Your task to perform on an android device: Show me the alarms in the clock app Image 0: 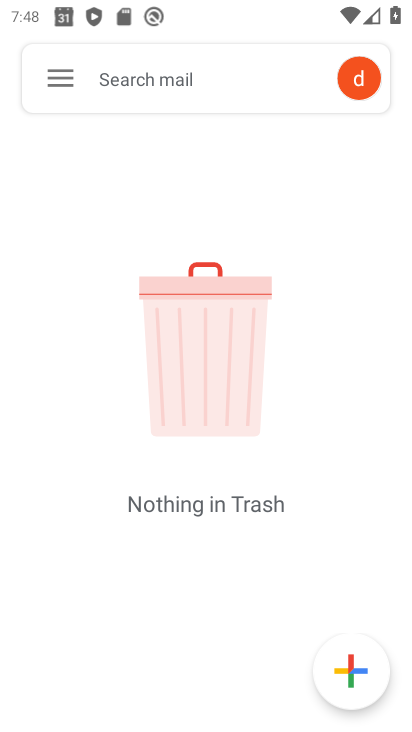
Step 0: press home button
Your task to perform on an android device: Show me the alarms in the clock app Image 1: 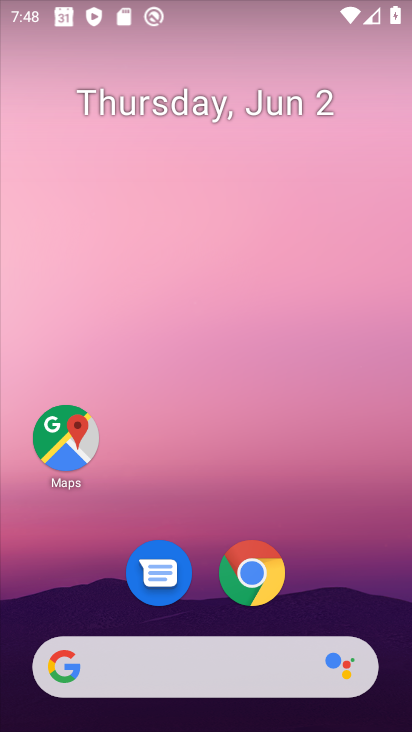
Step 1: drag from (351, 521) to (381, 65)
Your task to perform on an android device: Show me the alarms in the clock app Image 2: 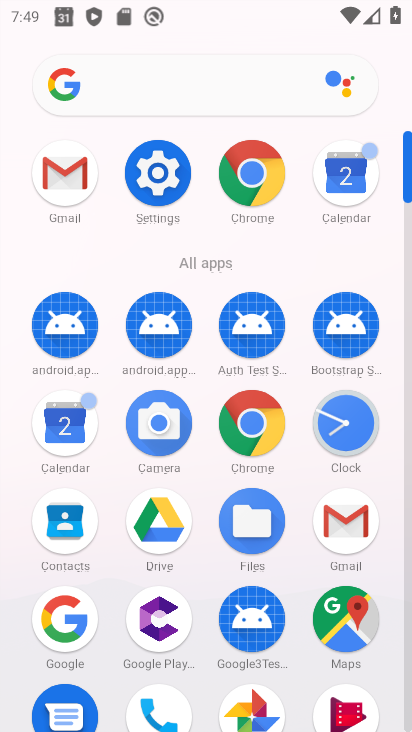
Step 2: click (345, 431)
Your task to perform on an android device: Show me the alarms in the clock app Image 3: 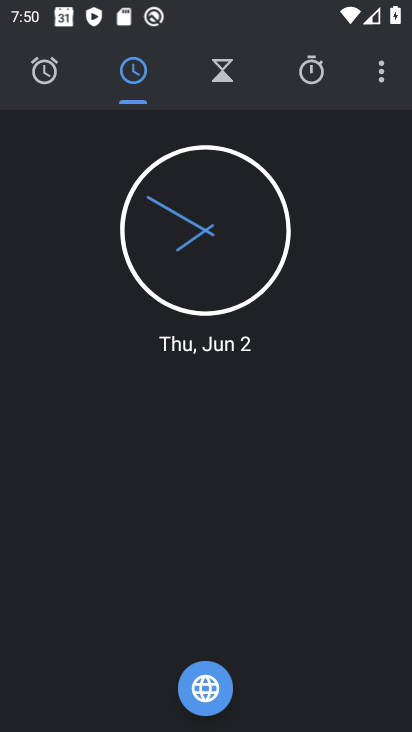
Step 3: click (371, 74)
Your task to perform on an android device: Show me the alarms in the clock app Image 4: 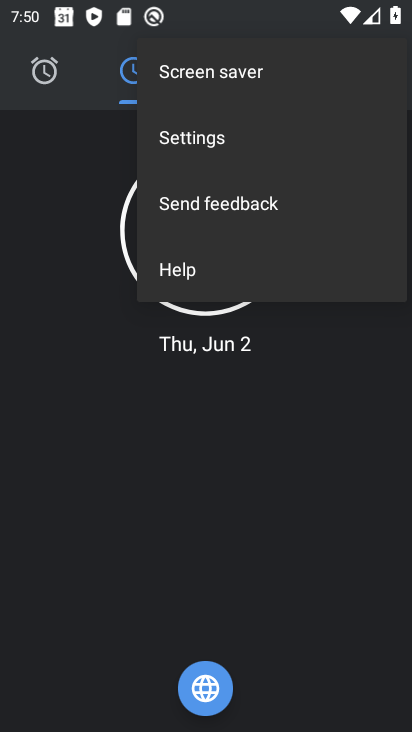
Step 4: click (270, 434)
Your task to perform on an android device: Show me the alarms in the clock app Image 5: 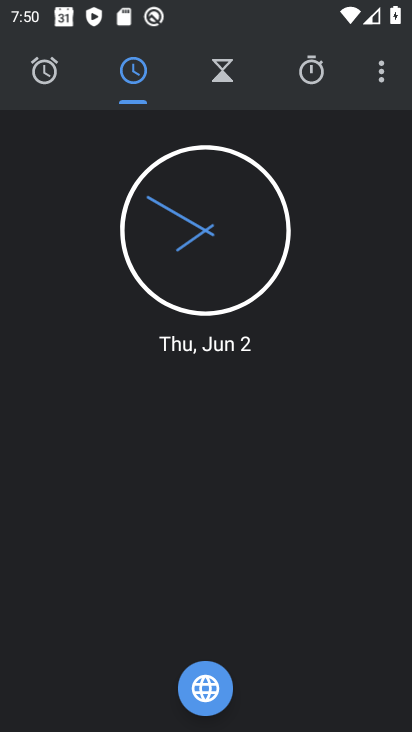
Step 5: click (46, 106)
Your task to perform on an android device: Show me the alarms in the clock app Image 6: 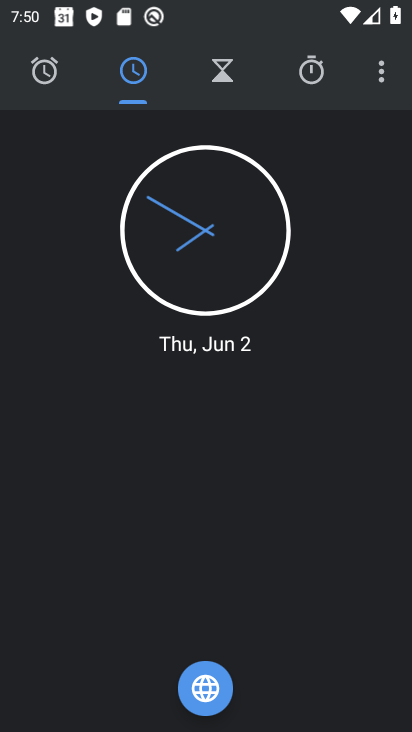
Step 6: click (48, 94)
Your task to perform on an android device: Show me the alarms in the clock app Image 7: 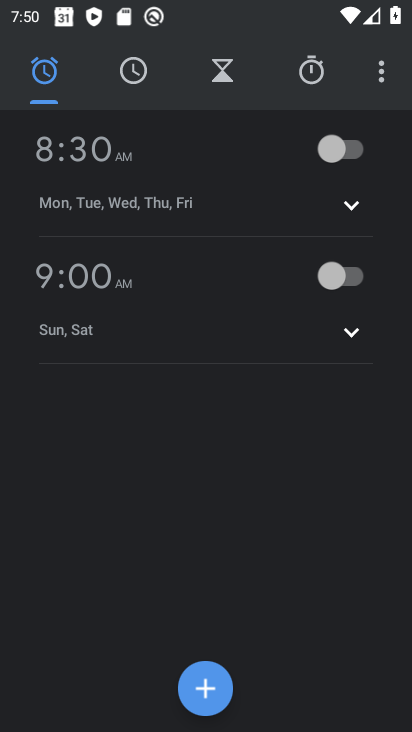
Step 7: task complete